Your task to perform on an android device: Open Google Maps Image 0: 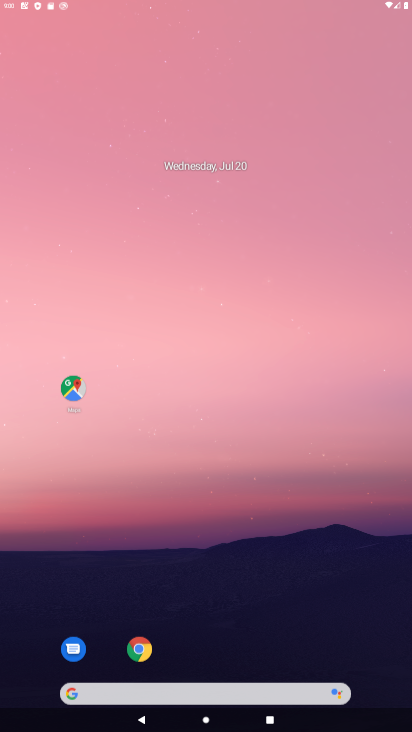
Step 0: drag from (253, 656) to (258, 107)
Your task to perform on an android device: Open Google Maps Image 1: 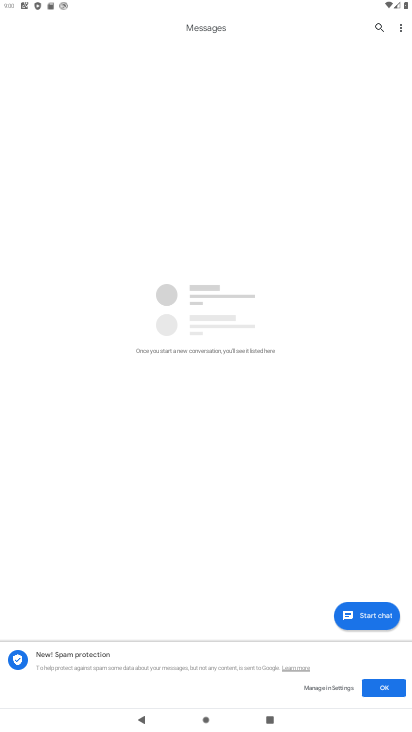
Step 1: task complete